Your task to perform on an android device: Open the Play Movies app and select the watchlist tab. Image 0: 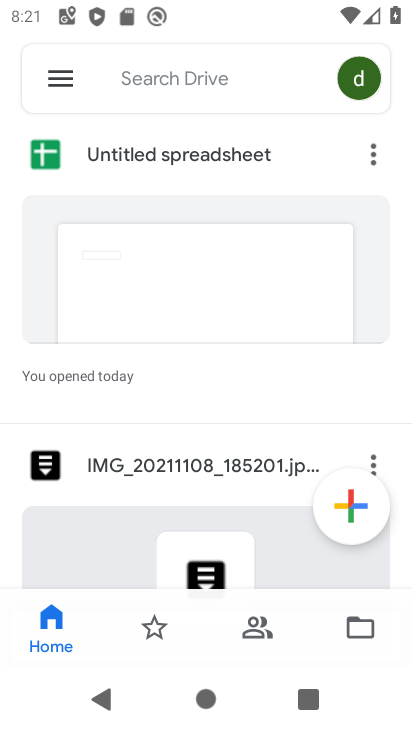
Step 0: press home button
Your task to perform on an android device: Open the Play Movies app and select the watchlist tab. Image 1: 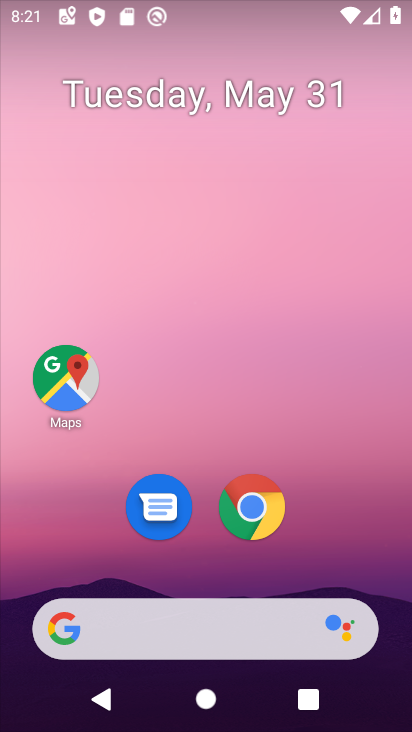
Step 1: drag from (388, 566) to (206, 195)
Your task to perform on an android device: Open the Play Movies app and select the watchlist tab. Image 2: 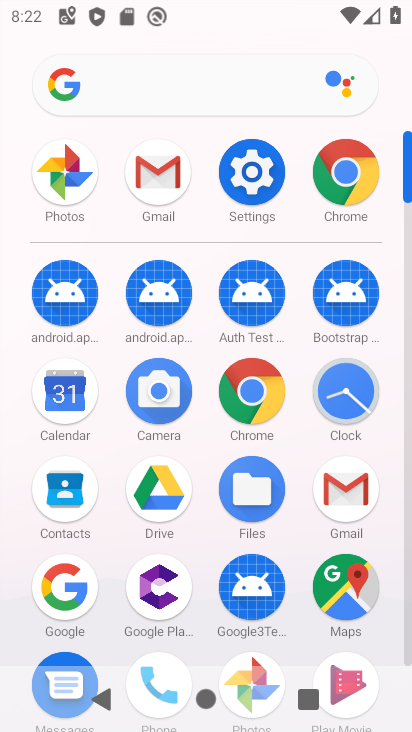
Step 2: drag from (298, 553) to (285, 307)
Your task to perform on an android device: Open the Play Movies app and select the watchlist tab. Image 3: 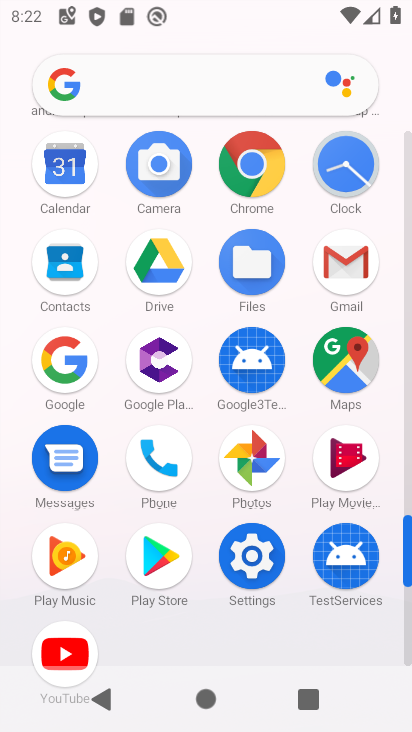
Step 3: click (343, 458)
Your task to perform on an android device: Open the Play Movies app and select the watchlist tab. Image 4: 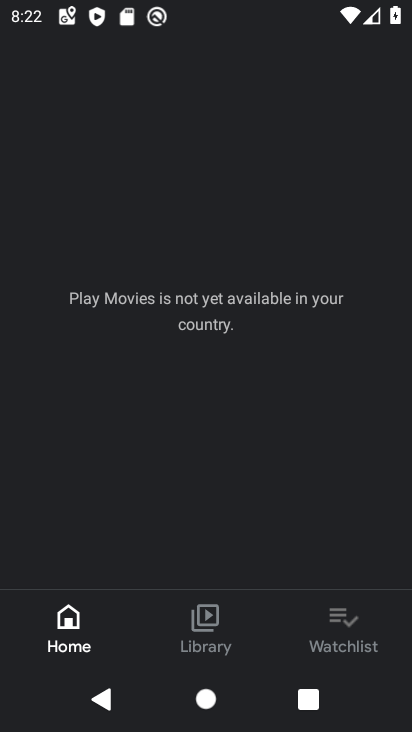
Step 4: click (357, 613)
Your task to perform on an android device: Open the Play Movies app and select the watchlist tab. Image 5: 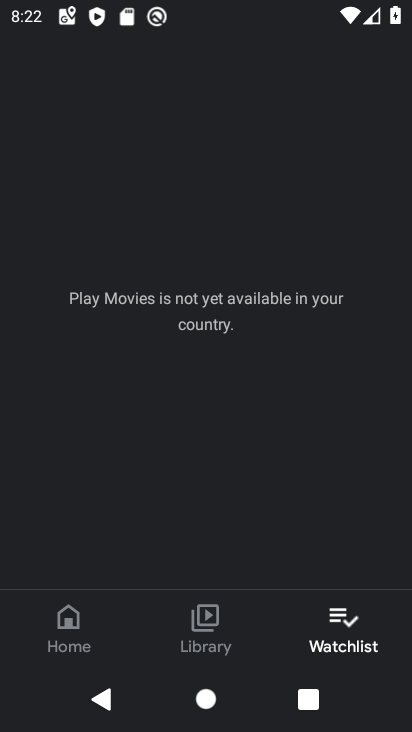
Step 5: task complete